Your task to perform on an android device: Open Wikipedia Image 0: 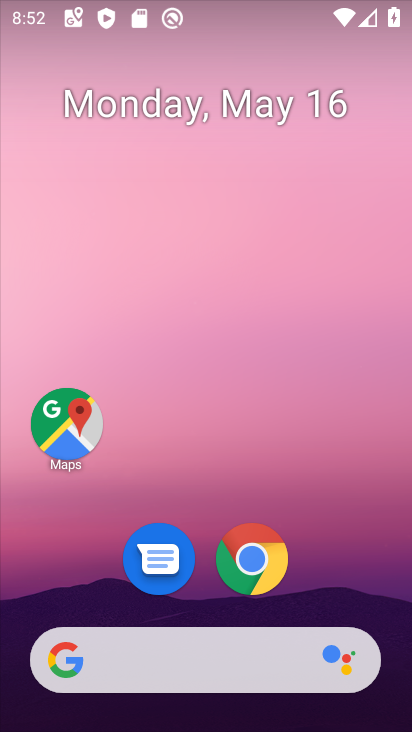
Step 0: click (261, 539)
Your task to perform on an android device: Open Wikipedia Image 1: 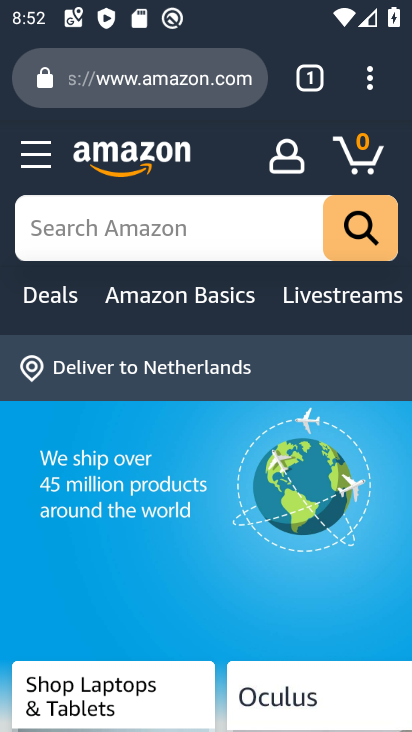
Step 1: click (159, 75)
Your task to perform on an android device: Open Wikipedia Image 2: 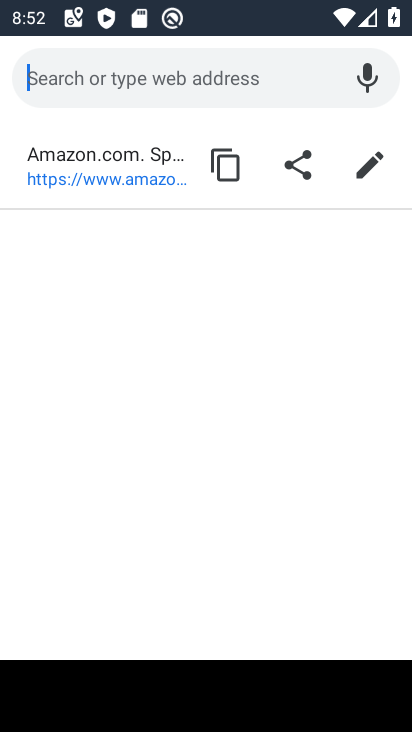
Step 2: type "wikipedi"
Your task to perform on an android device: Open Wikipedia Image 3: 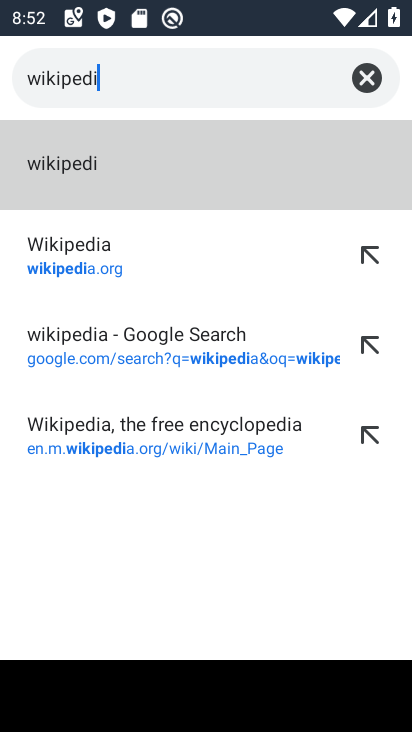
Step 3: click (129, 274)
Your task to perform on an android device: Open Wikipedia Image 4: 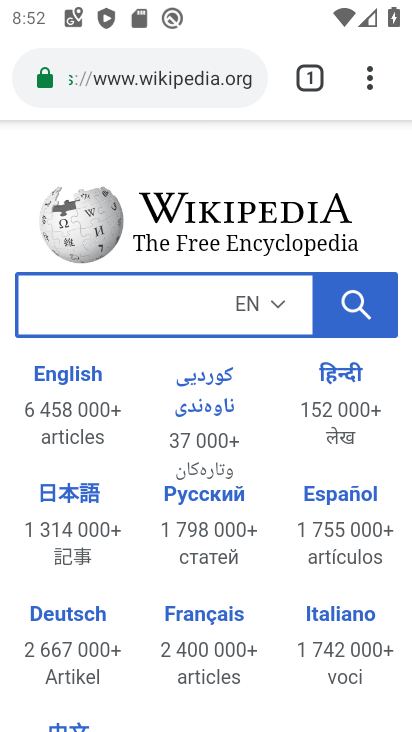
Step 4: task complete